Your task to perform on an android device: open chrome and create a bookmark for the current page Image 0: 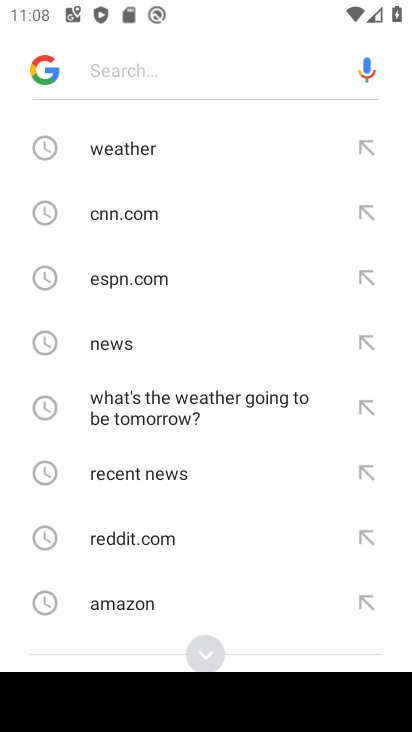
Step 0: press home button
Your task to perform on an android device: open chrome and create a bookmark for the current page Image 1: 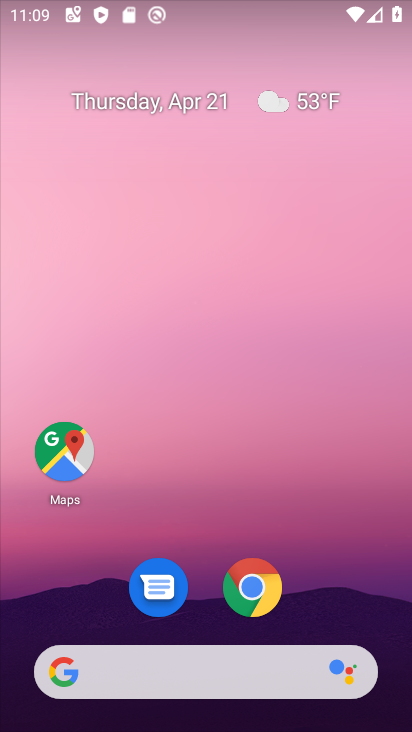
Step 1: click (264, 585)
Your task to perform on an android device: open chrome and create a bookmark for the current page Image 2: 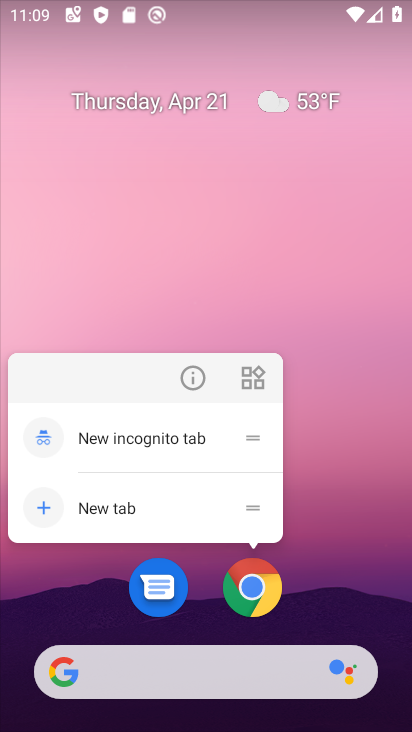
Step 2: click (229, 589)
Your task to perform on an android device: open chrome and create a bookmark for the current page Image 3: 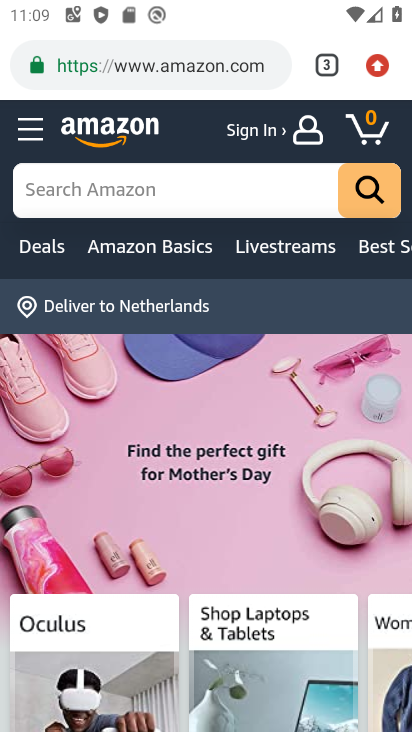
Step 3: drag from (374, 58) to (190, 320)
Your task to perform on an android device: open chrome and create a bookmark for the current page Image 4: 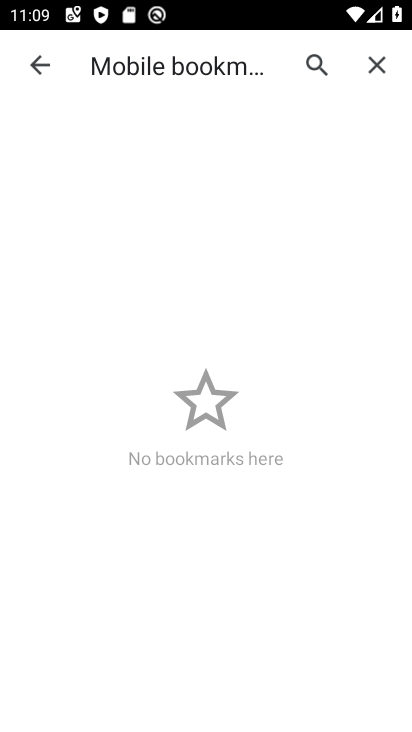
Step 4: click (30, 59)
Your task to perform on an android device: open chrome and create a bookmark for the current page Image 5: 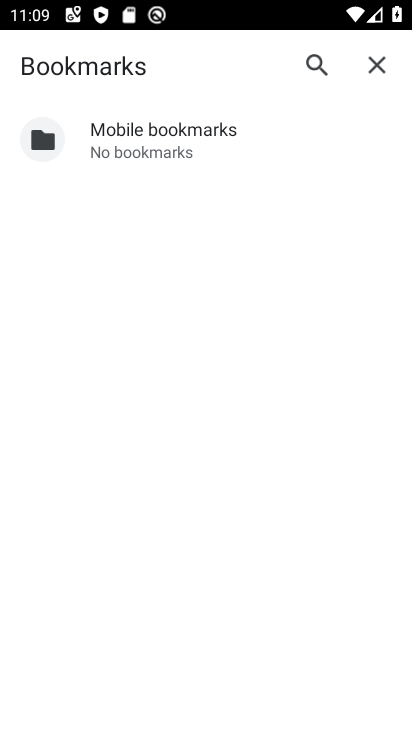
Step 5: click (373, 53)
Your task to perform on an android device: open chrome and create a bookmark for the current page Image 6: 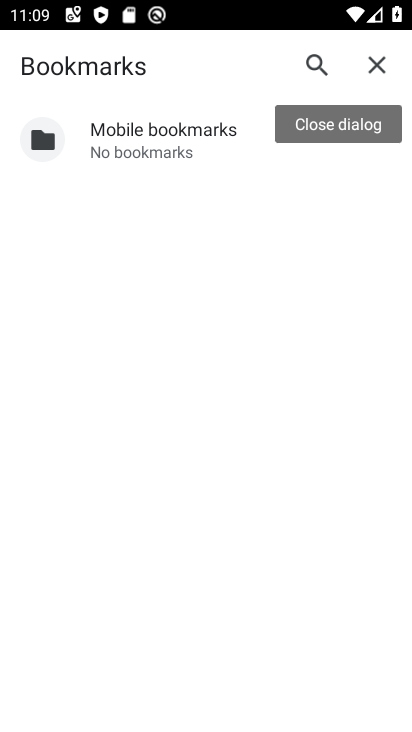
Step 6: click (376, 67)
Your task to perform on an android device: open chrome and create a bookmark for the current page Image 7: 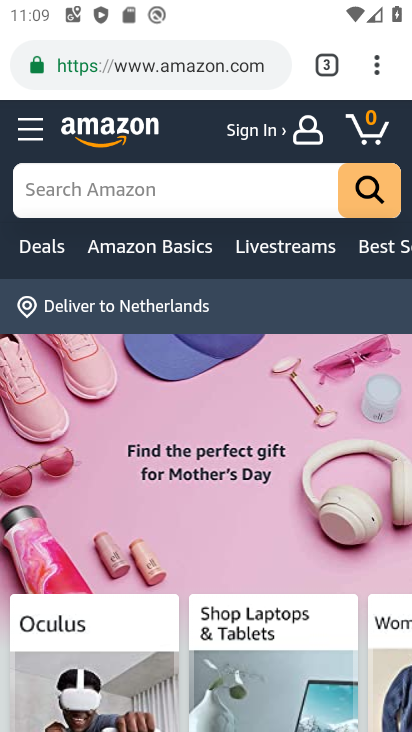
Step 7: click (327, 64)
Your task to perform on an android device: open chrome and create a bookmark for the current page Image 8: 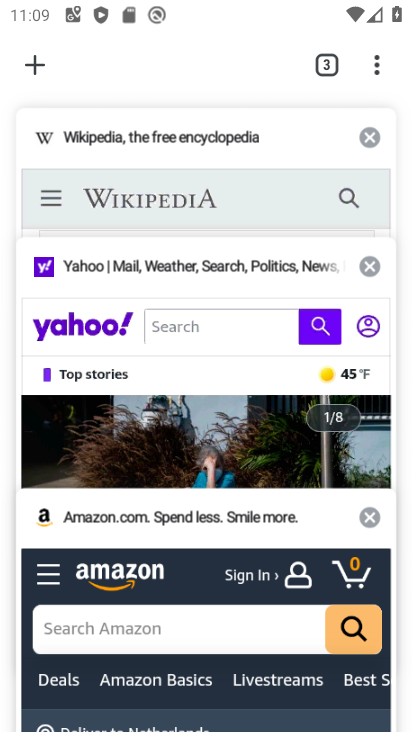
Step 8: click (33, 61)
Your task to perform on an android device: open chrome and create a bookmark for the current page Image 9: 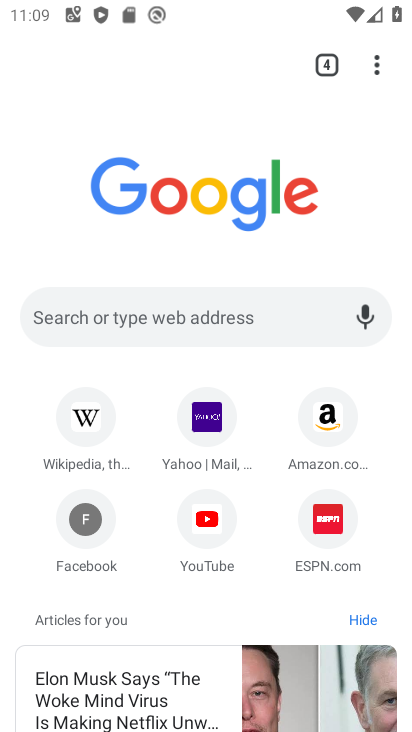
Step 9: click (129, 310)
Your task to perform on an android device: open chrome and create a bookmark for the current page Image 10: 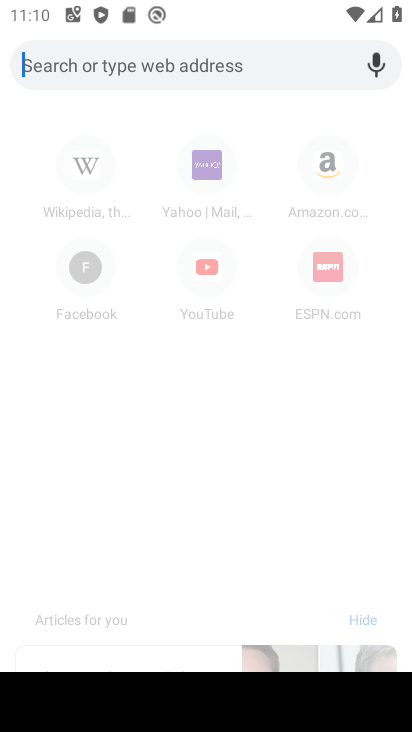
Step 10: type "ola"
Your task to perform on an android device: open chrome and create a bookmark for the current page Image 11: 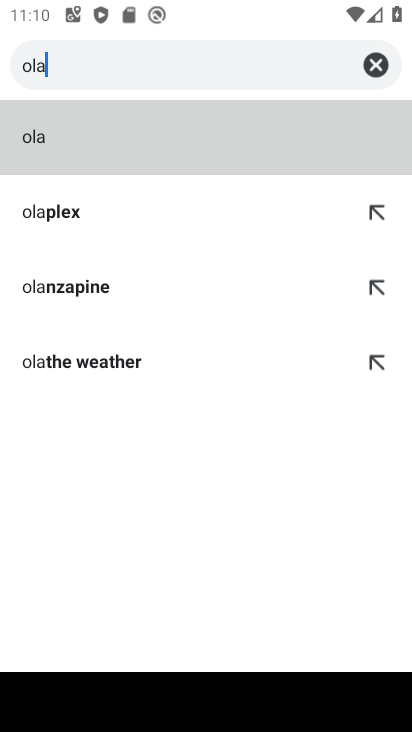
Step 11: click (186, 150)
Your task to perform on an android device: open chrome and create a bookmark for the current page Image 12: 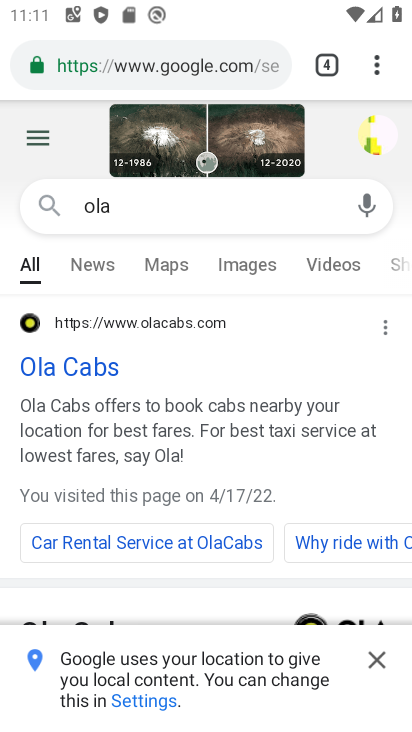
Step 12: click (64, 369)
Your task to perform on an android device: open chrome and create a bookmark for the current page Image 13: 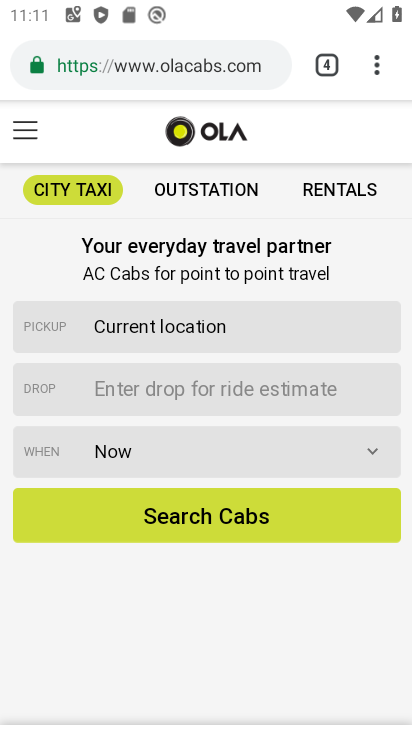
Step 13: task complete